Your task to perform on an android device: change the upload size in google photos Image 0: 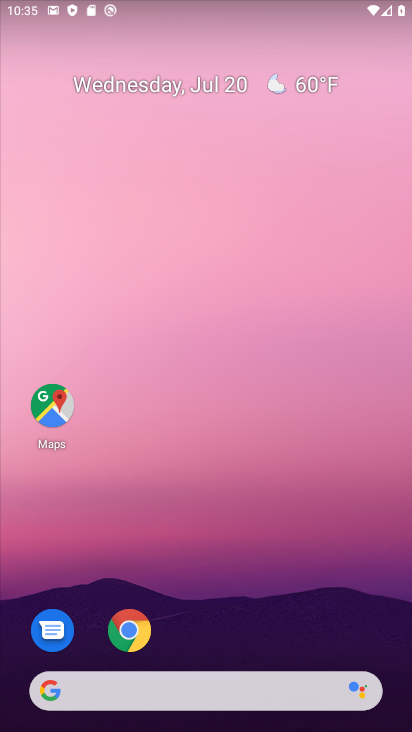
Step 0: drag from (216, 644) to (218, 91)
Your task to perform on an android device: change the upload size in google photos Image 1: 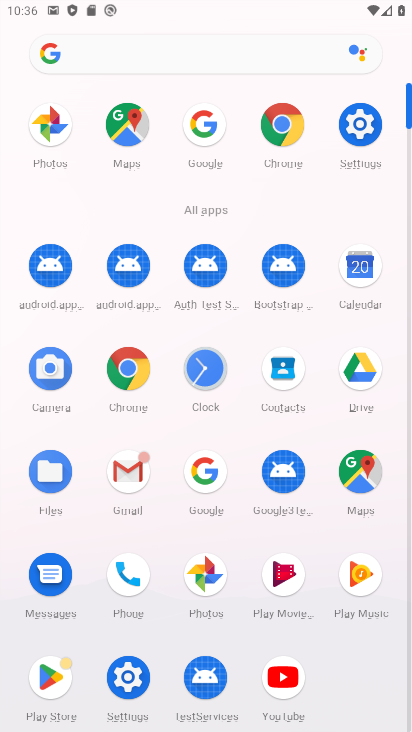
Step 1: click (203, 575)
Your task to perform on an android device: change the upload size in google photos Image 2: 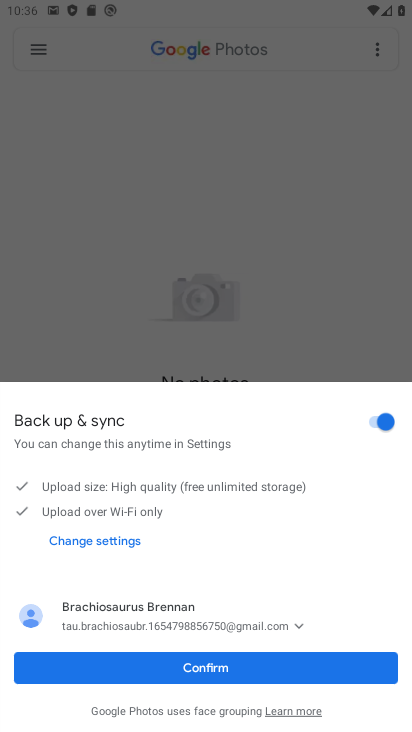
Step 2: click (185, 673)
Your task to perform on an android device: change the upload size in google photos Image 3: 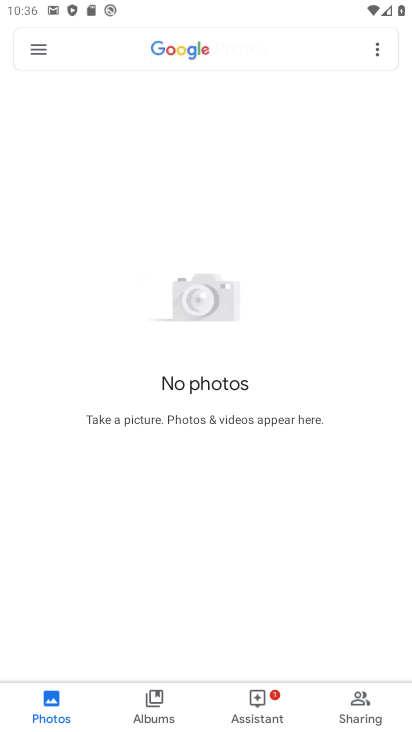
Step 3: click (39, 47)
Your task to perform on an android device: change the upload size in google photos Image 4: 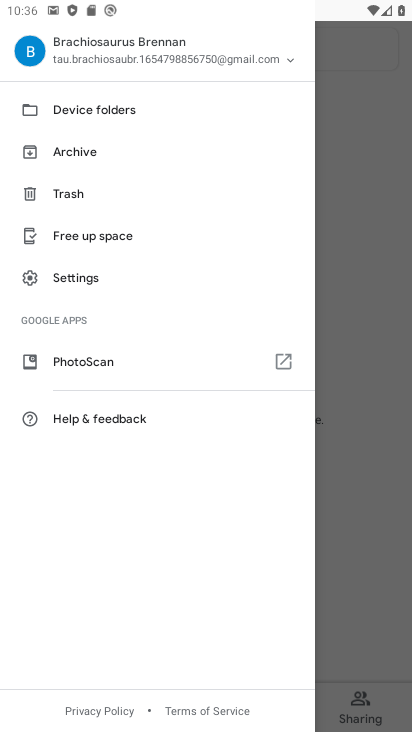
Step 4: click (64, 271)
Your task to perform on an android device: change the upload size in google photos Image 5: 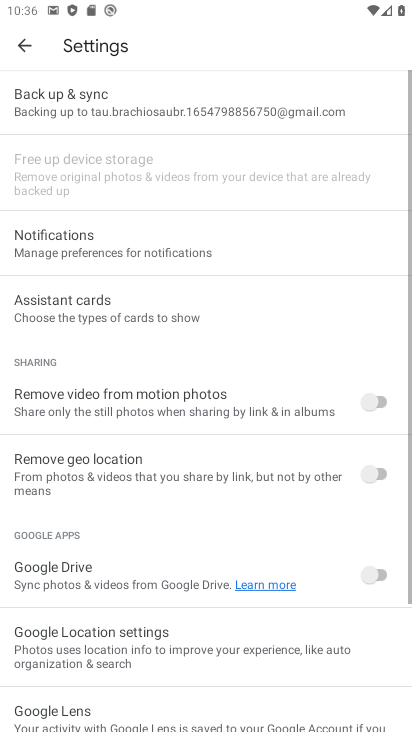
Step 5: click (109, 103)
Your task to perform on an android device: change the upload size in google photos Image 6: 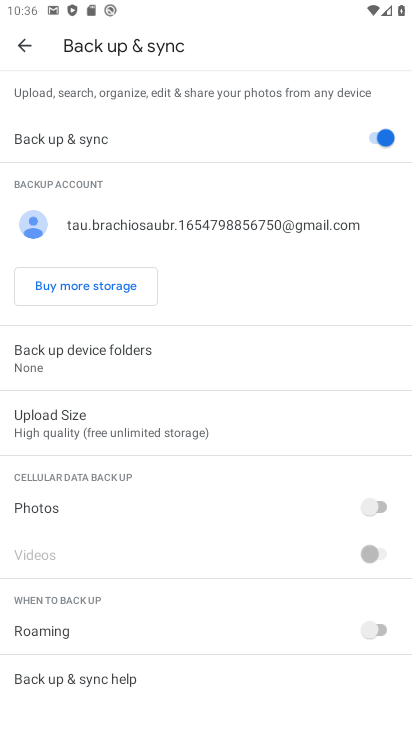
Step 6: click (62, 407)
Your task to perform on an android device: change the upload size in google photos Image 7: 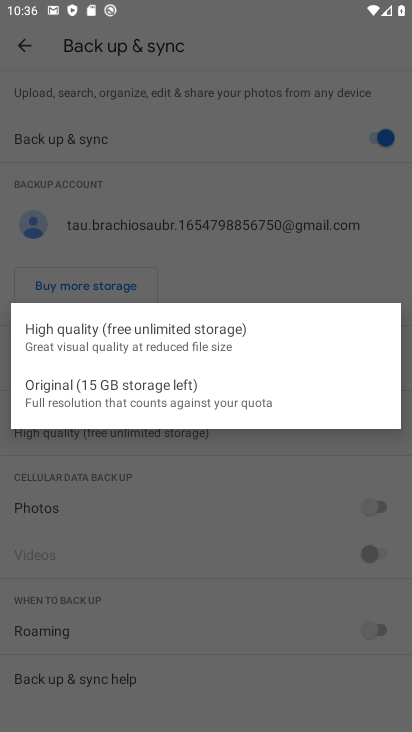
Step 7: click (122, 395)
Your task to perform on an android device: change the upload size in google photos Image 8: 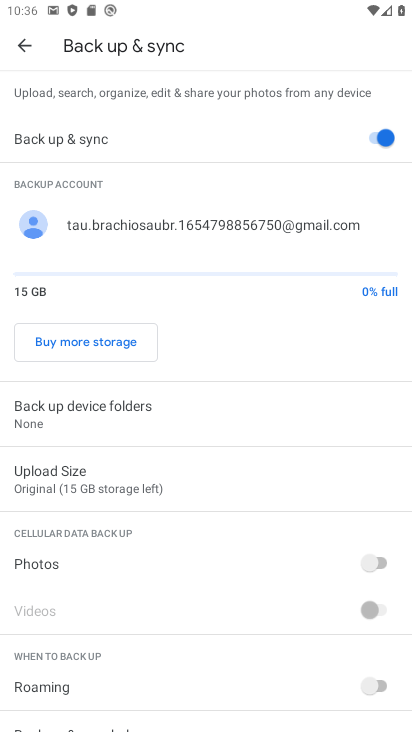
Step 8: task complete